Your task to perform on an android device: Set the phone to "Do not disturb". Image 0: 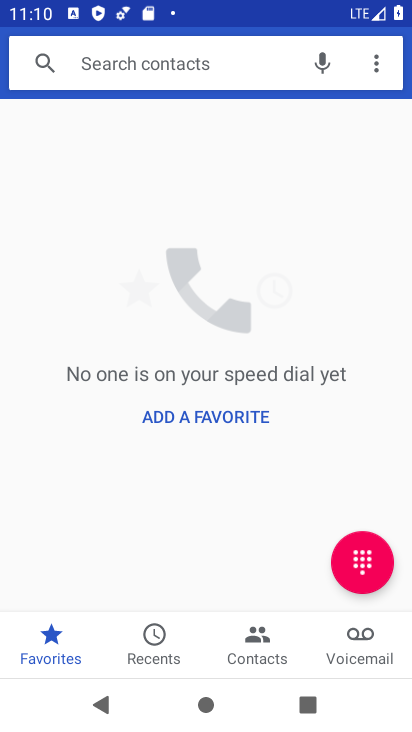
Step 0: press home button
Your task to perform on an android device: Set the phone to "Do not disturb". Image 1: 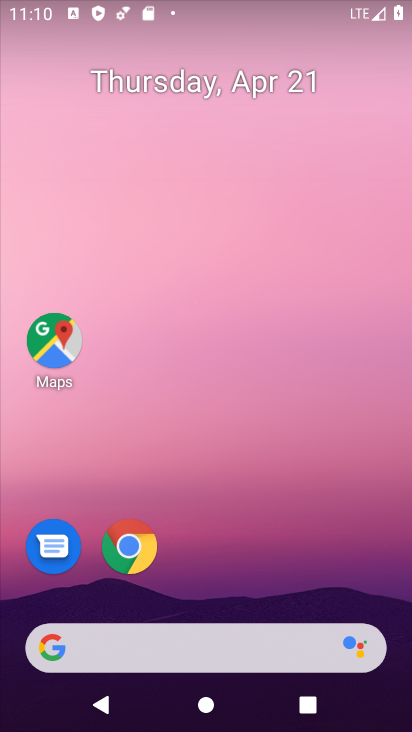
Step 1: drag from (367, 602) to (300, 108)
Your task to perform on an android device: Set the phone to "Do not disturb". Image 2: 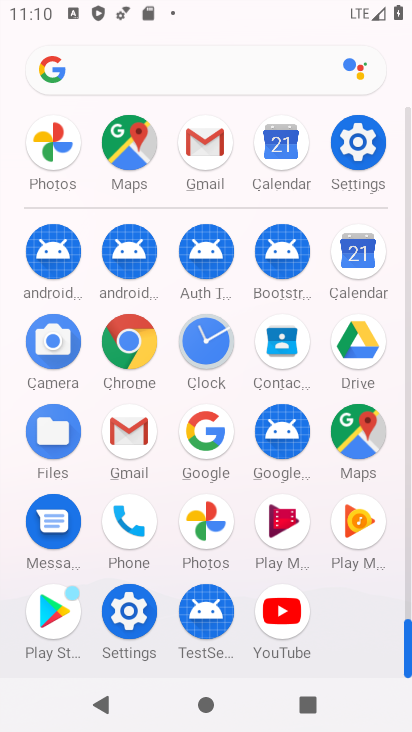
Step 2: click (124, 609)
Your task to perform on an android device: Set the phone to "Do not disturb". Image 3: 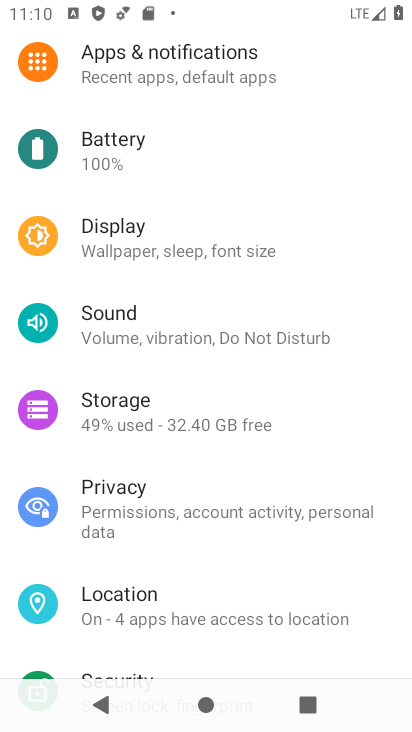
Step 3: click (93, 317)
Your task to perform on an android device: Set the phone to "Do not disturb". Image 4: 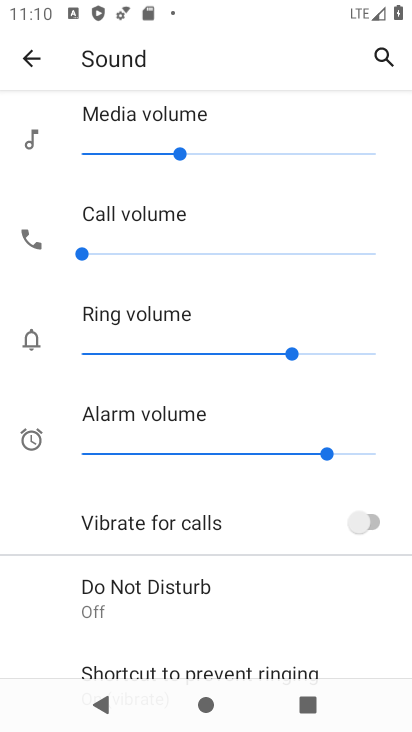
Step 4: click (122, 595)
Your task to perform on an android device: Set the phone to "Do not disturb". Image 5: 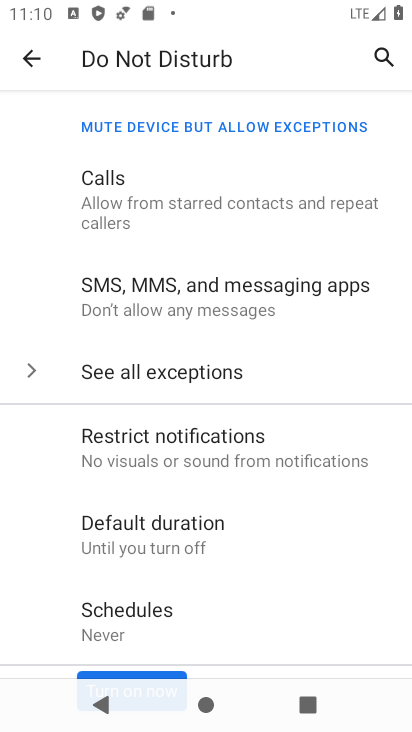
Step 5: drag from (318, 637) to (312, 202)
Your task to perform on an android device: Set the phone to "Do not disturb". Image 6: 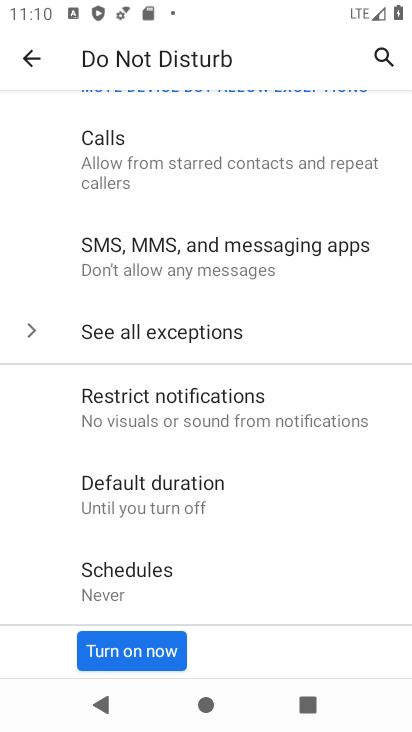
Step 6: click (109, 653)
Your task to perform on an android device: Set the phone to "Do not disturb". Image 7: 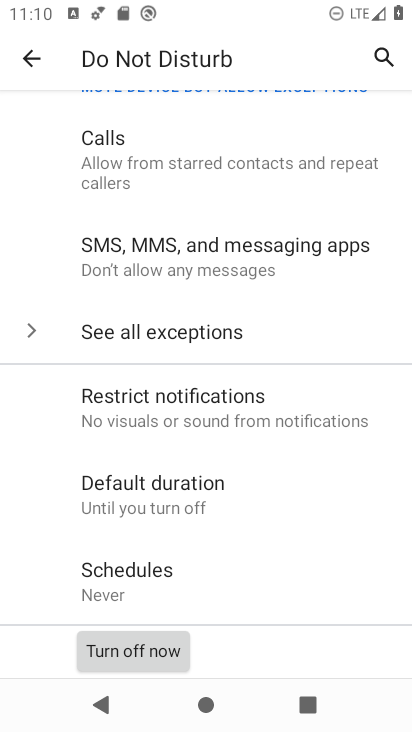
Step 7: task complete